Your task to perform on an android device: turn on location history Image 0: 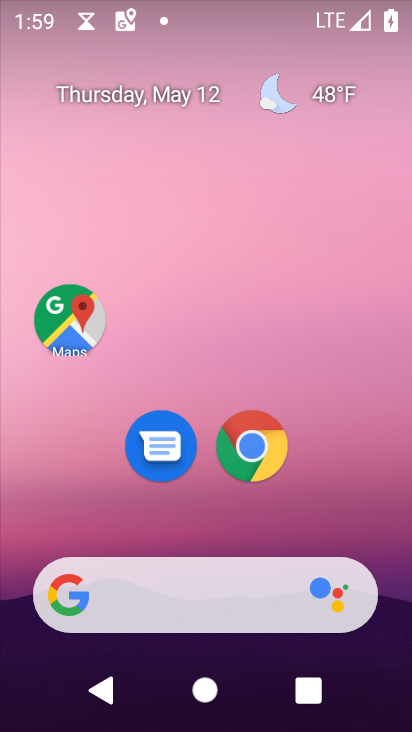
Step 0: drag from (314, 536) to (309, 96)
Your task to perform on an android device: turn on location history Image 1: 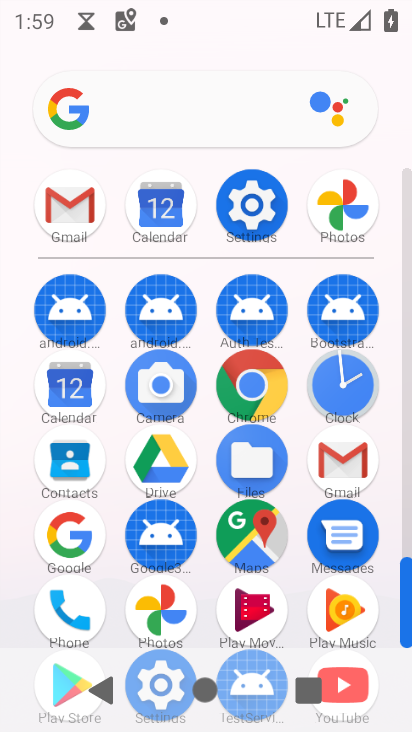
Step 1: click (264, 202)
Your task to perform on an android device: turn on location history Image 2: 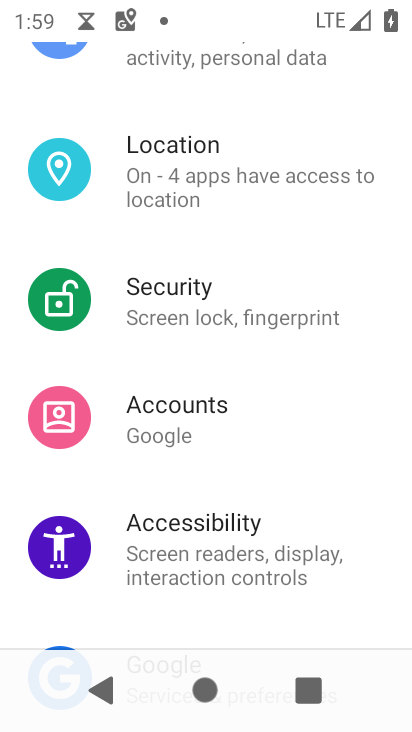
Step 2: drag from (254, 503) to (230, 141)
Your task to perform on an android device: turn on location history Image 3: 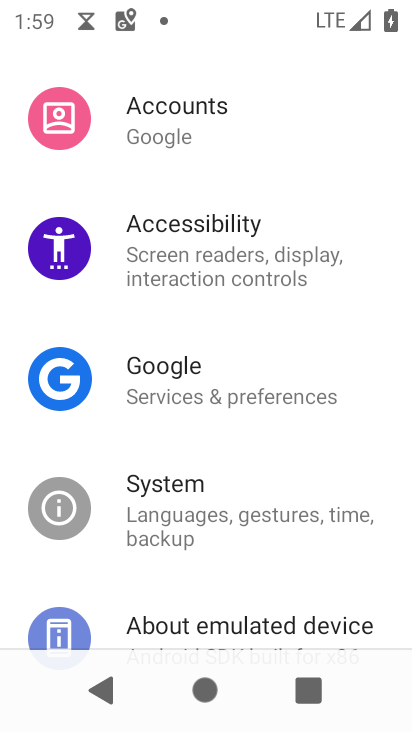
Step 3: drag from (267, 168) to (261, 502)
Your task to perform on an android device: turn on location history Image 4: 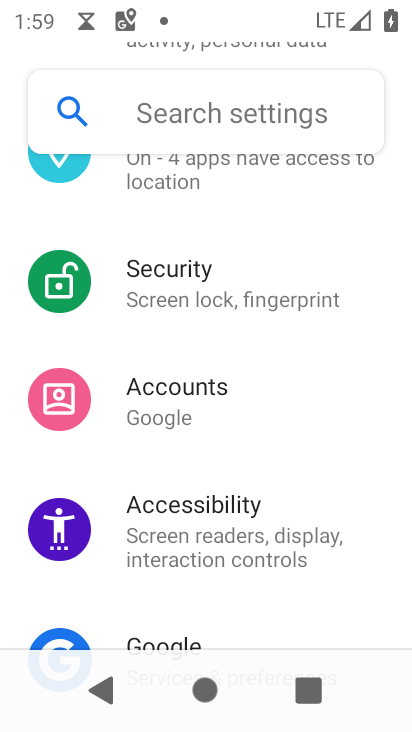
Step 4: drag from (240, 229) to (249, 489)
Your task to perform on an android device: turn on location history Image 5: 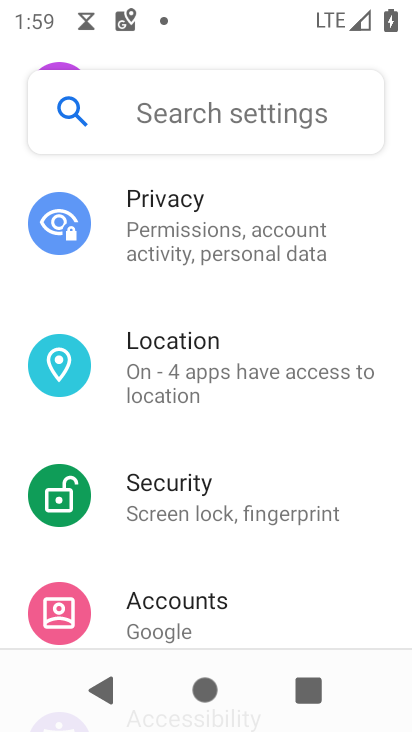
Step 5: click (215, 371)
Your task to perform on an android device: turn on location history Image 6: 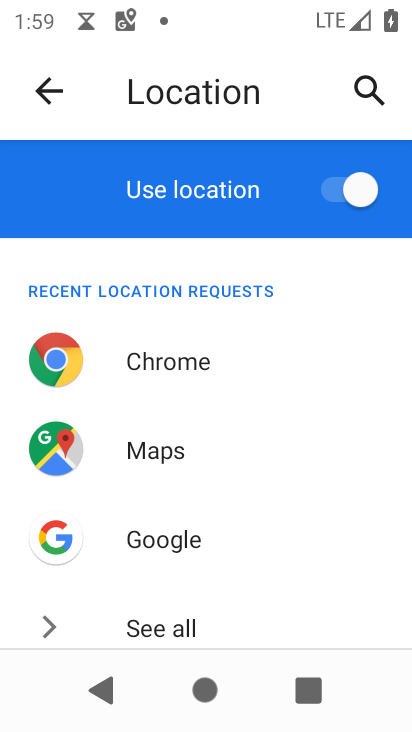
Step 6: drag from (232, 597) to (232, 248)
Your task to perform on an android device: turn on location history Image 7: 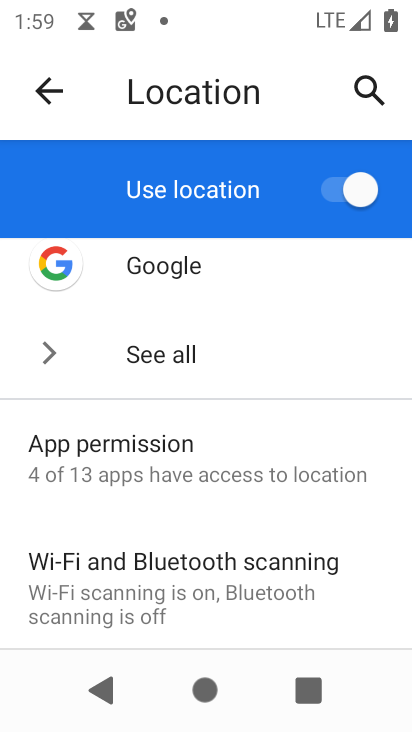
Step 7: drag from (201, 485) to (198, 196)
Your task to perform on an android device: turn on location history Image 8: 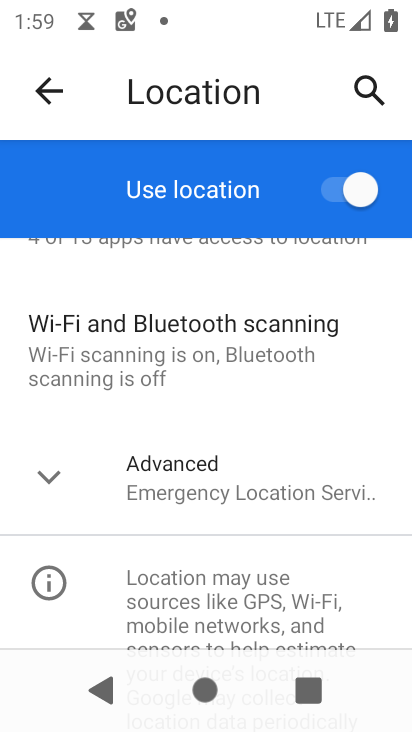
Step 8: click (228, 488)
Your task to perform on an android device: turn on location history Image 9: 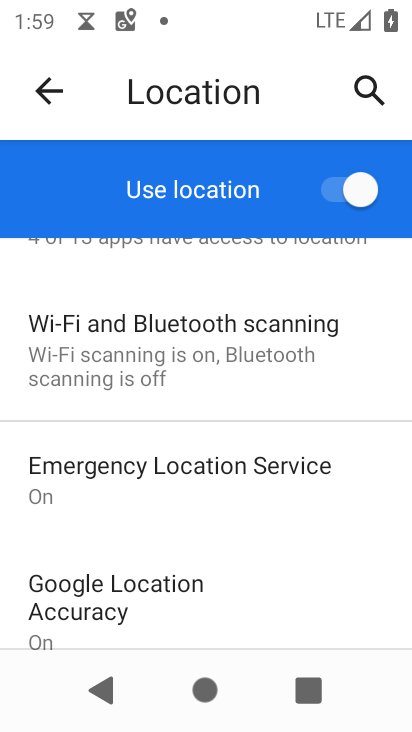
Step 9: drag from (236, 600) to (233, 365)
Your task to perform on an android device: turn on location history Image 10: 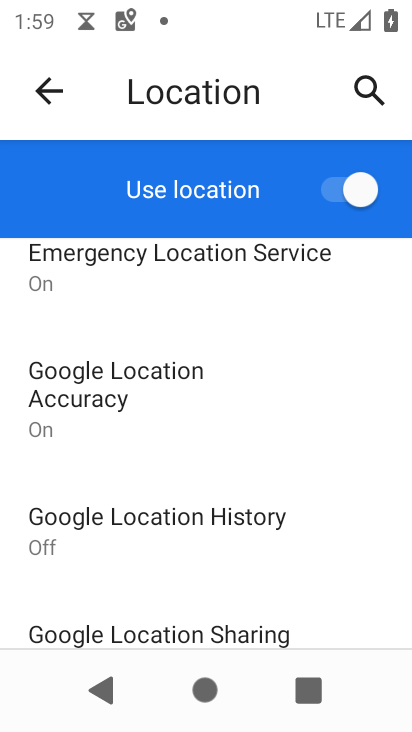
Step 10: click (234, 521)
Your task to perform on an android device: turn on location history Image 11: 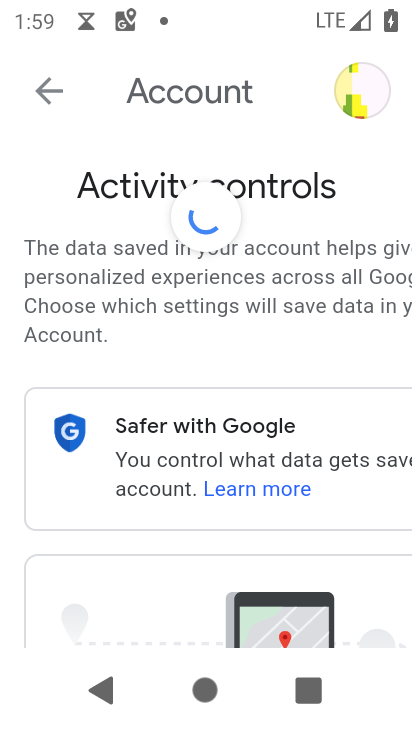
Step 11: task complete